Your task to perform on an android device: open sync settings in chrome Image 0: 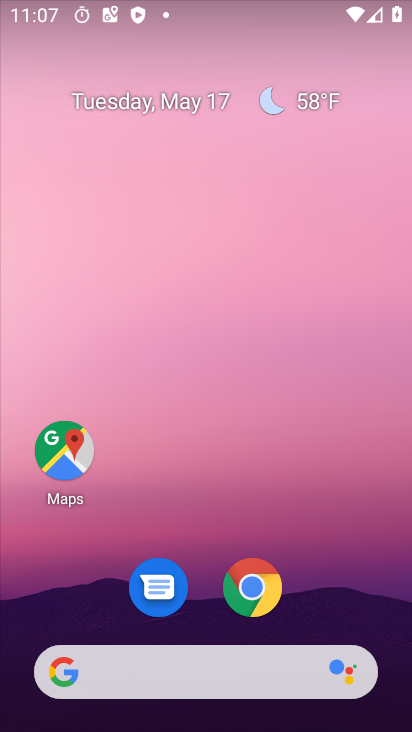
Step 0: click (253, 587)
Your task to perform on an android device: open sync settings in chrome Image 1: 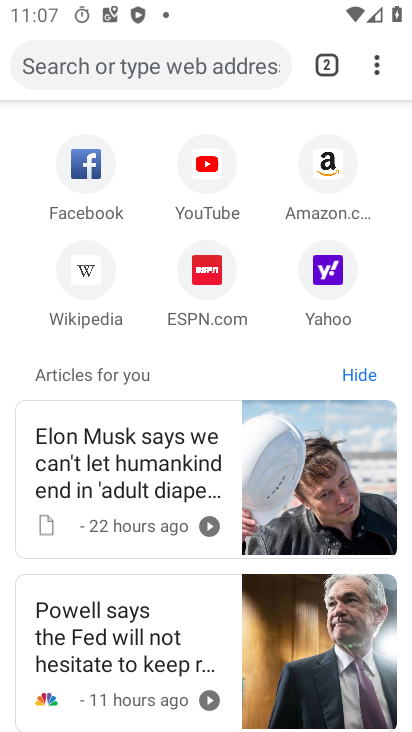
Step 1: click (378, 65)
Your task to perform on an android device: open sync settings in chrome Image 2: 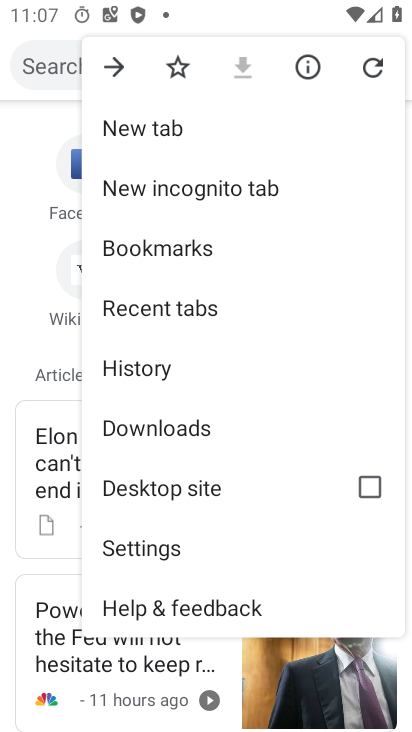
Step 2: click (143, 543)
Your task to perform on an android device: open sync settings in chrome Image 3: 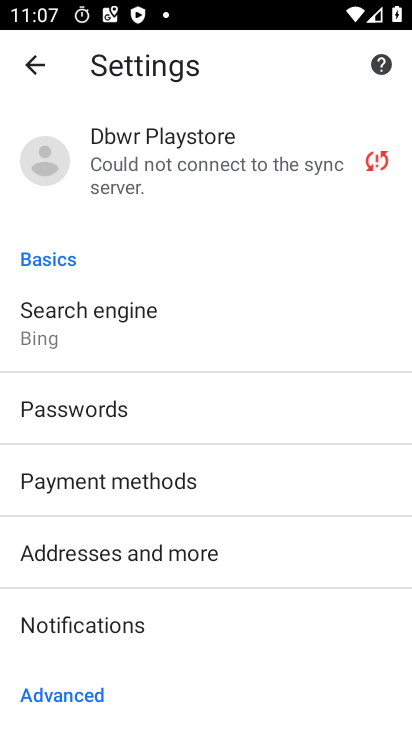
Step 3: drag from (176, 517) to (185, 425)
Your task to perform on an android device: open sync settings in chrome Image 4: 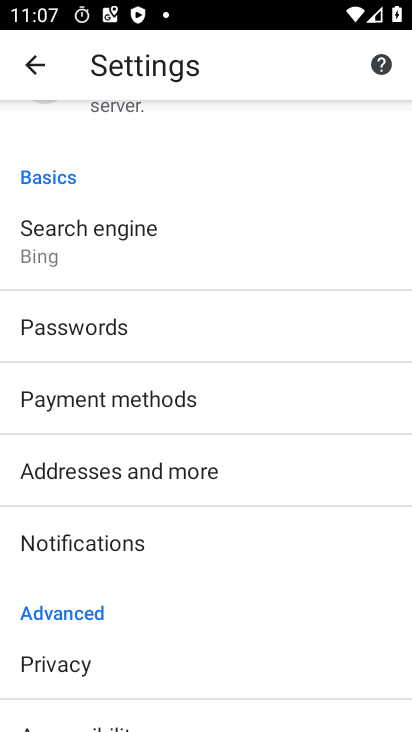
Step 4: drag from (164, 520) to (176, 438)
Your task to perform on an android device: open sync settings in chrome Image 5: 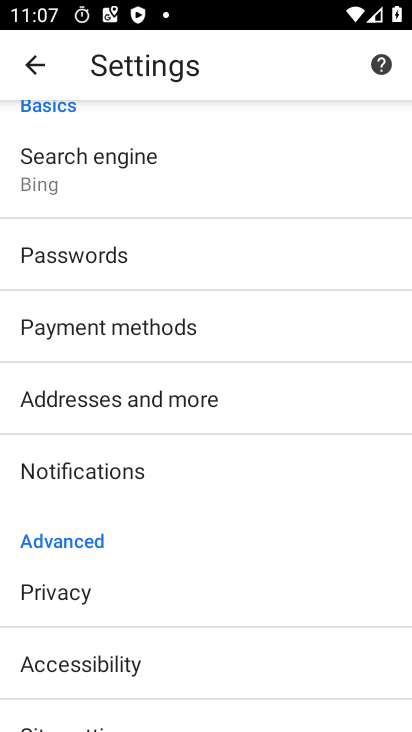
Step 5: drag from (142, 562) to (182, 465)
Your task to perform on an android device: open sync settings in chrome Image 6: 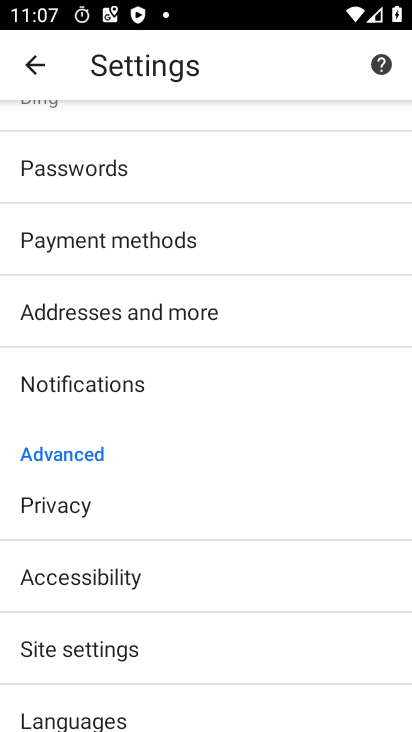
Step 6: drag from (111, 557) to (142, 481)
Your task to perform on an android device: open sync settings in chrome Image 7: 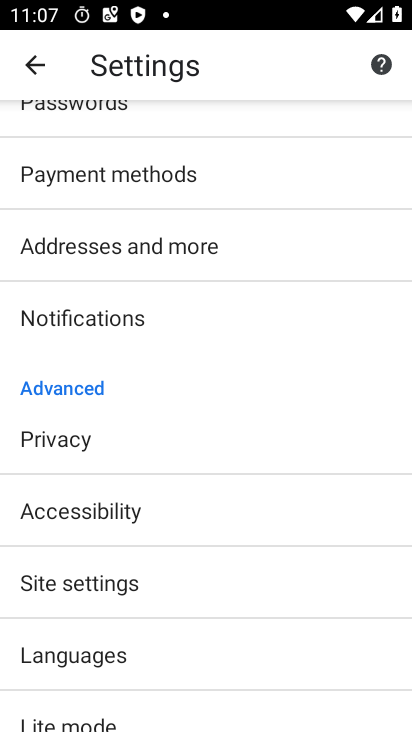
Step 7: click (94, 589)
Your task to perform on an android device: open sync settings in chrome Image 8: 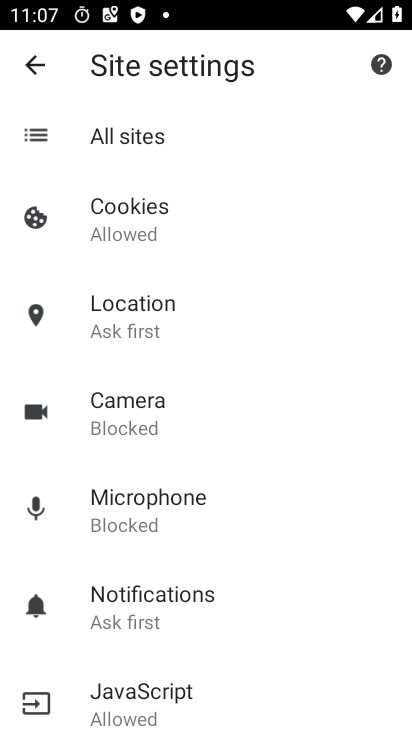
Step 8: drag from (191, 526) to (195, 453)
Your task to perform on an android device: open sync settings in chrome Image 9: 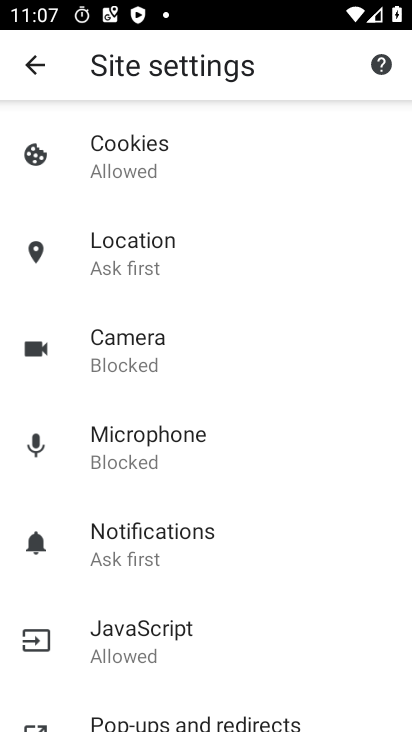
Step 9: drag from (183, 565) to (220, 472)
Your task to perform on an android device: open sync settings in chrome Image 10: 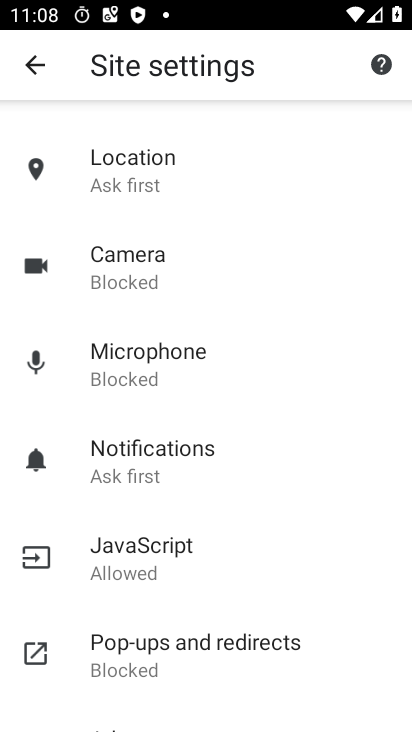
Step 10: drag from (183, 581) to (180, 496)
Your task to perform on an android device: open sync settings in chrome Image 11: 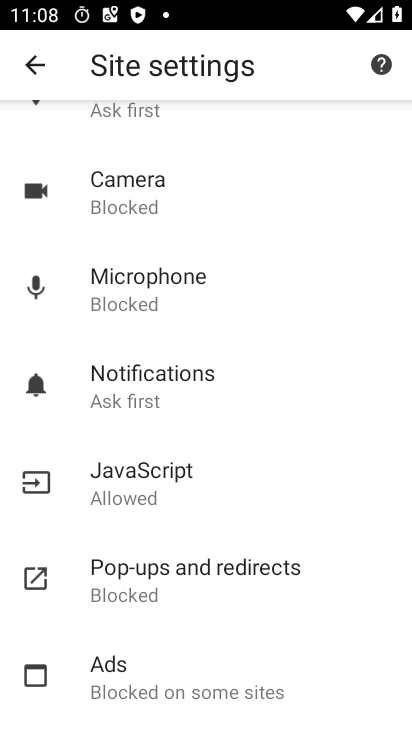
Step 11: drag from (161, 607) to (181, 515)
Your task to perform on an android device: open sync settings in chrome Image 12: 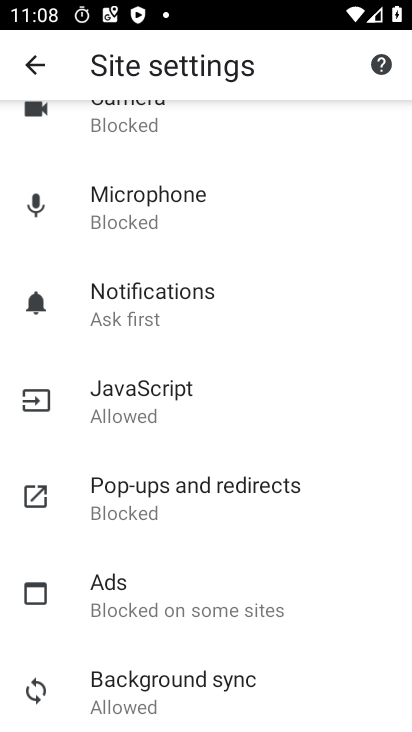
Step 12: drag from (143, 634) to (178, 531)
Your task to perform on an android device: open sync settings in chrome Image 13: 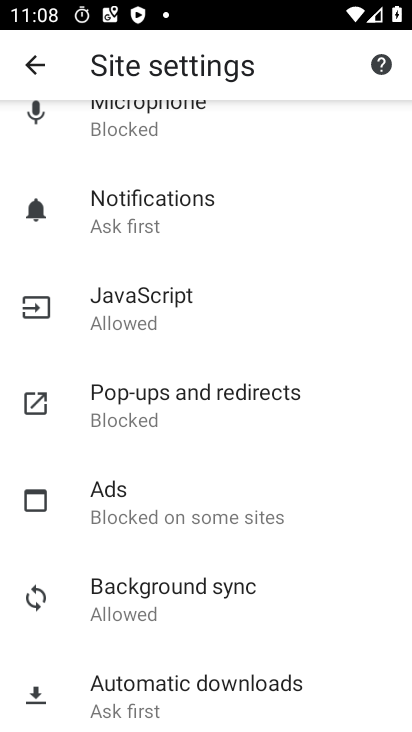
Step 13: click (147, 591)
Your task to perform on an android device: open sync settings in chrome Image 14: 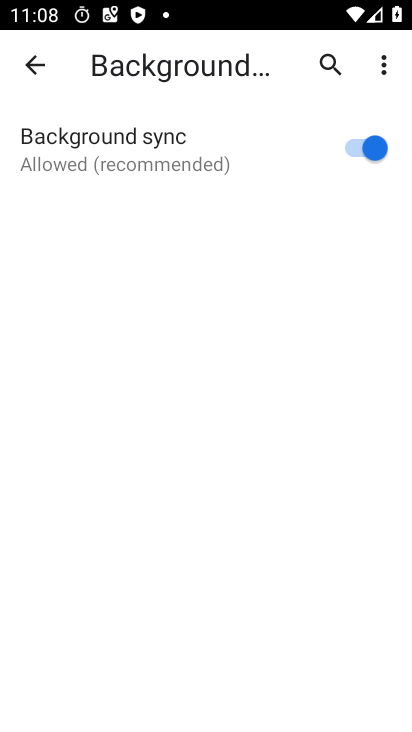
Step 14: task complete